Your task to perform on an android device: visit the assistant section in the google photos Image 0: 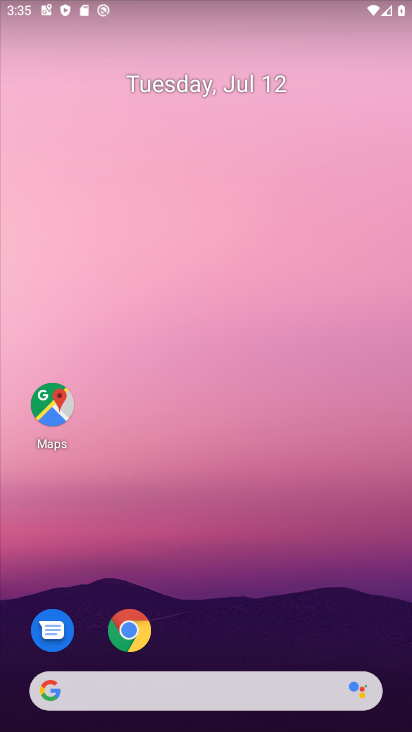
Step 0: drag from (231, 648) to (137, 97)
Your task to perform on an android device: visit the assistant section in the google photos Image 1: 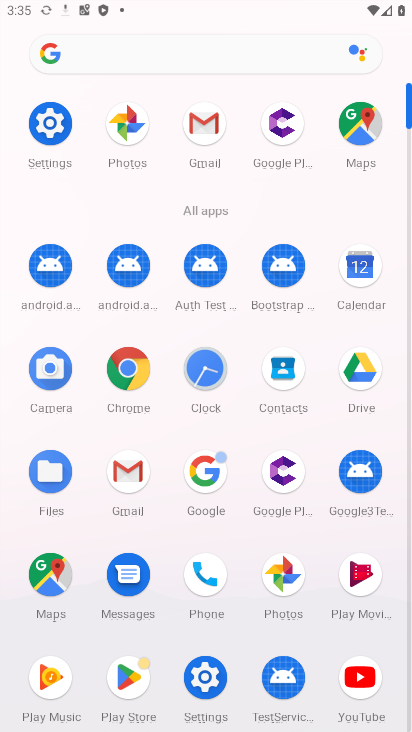
Step 1: click (298, 572)
Your task to perform on an android device: visit the assistant section in the google photos Image 2: 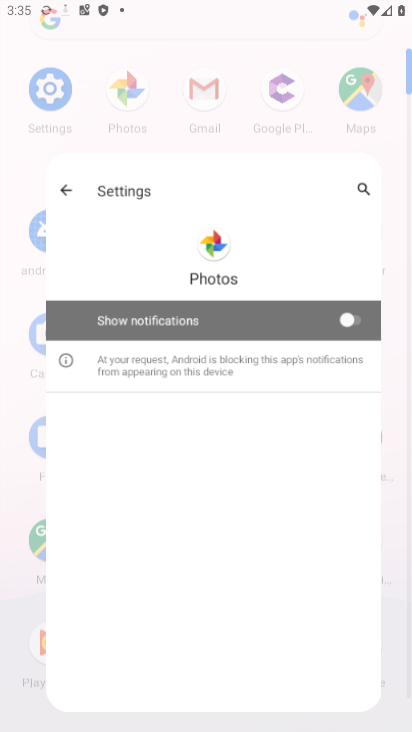
Step 2: click (290, 555)
Your task to perform on an android device: visit the assistant section in the google photos Image 3: 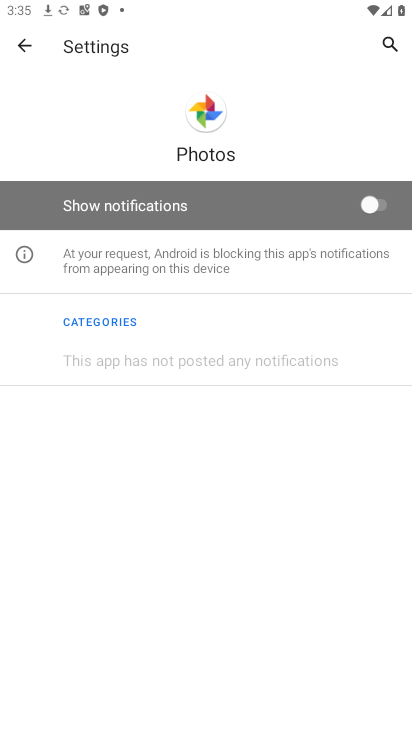
Step 3: click (25, 48)
Your task to perform on an android device: visit the assistant section in the google photos Image 4: 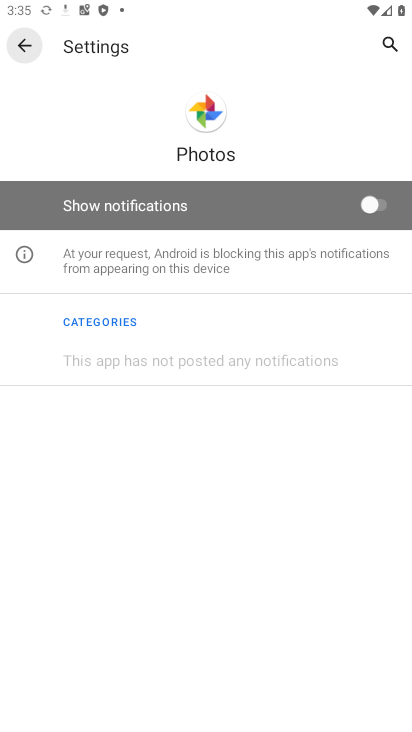
Step 4: click (32, 42)
Your task to perform on an android device: visit the assistant section in the google photos Image 5: 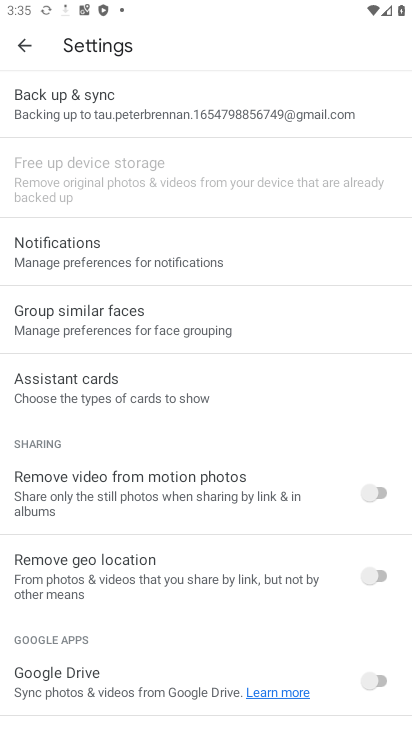
Step 5: click (29, 29)
Your task to perform on an android device: visit the assistant section in the google photos Image 6: 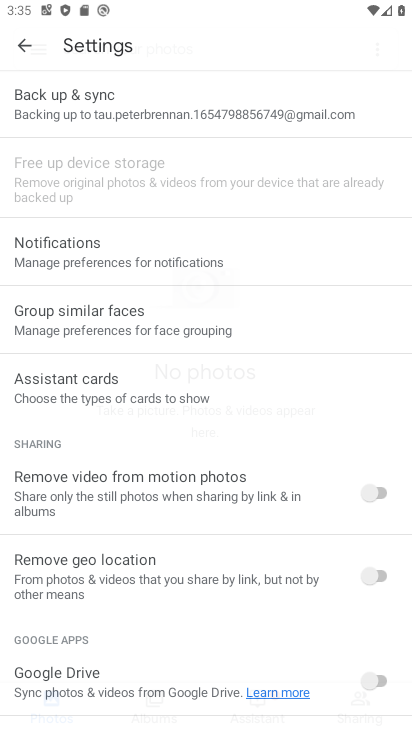
Step 6: click (17, 48)
Your task to perform on an android device: visit the assistant section in the google photos Image 7: 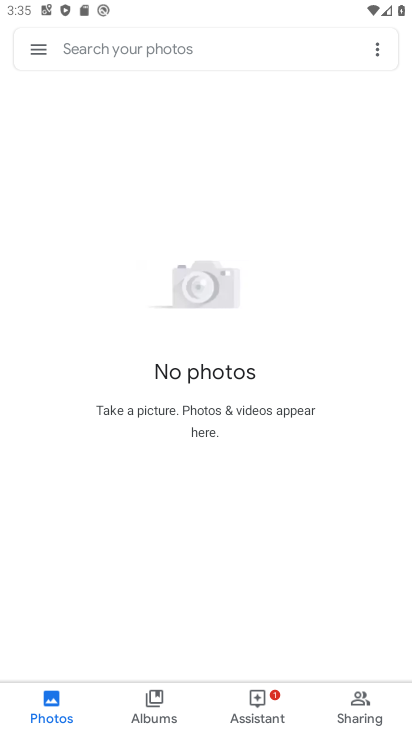
Step 7: click (259, 706)
Your task to perform on an android device: visit the assistant section in the google photos Image 8: 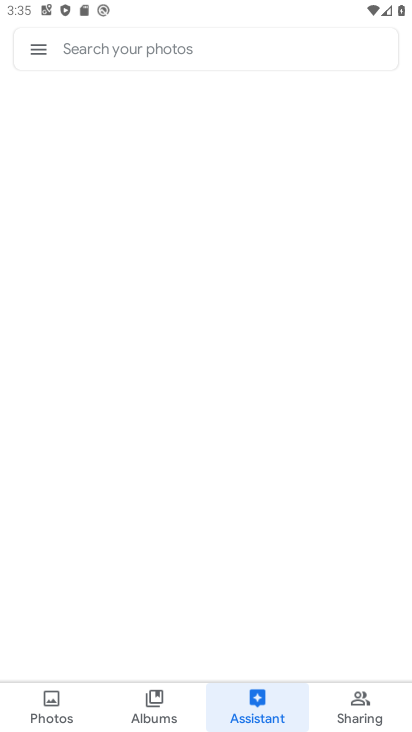
Step 8: click (253, 699)
Your task to perform on an android device: visit the assistant section in the google photos Image 9: 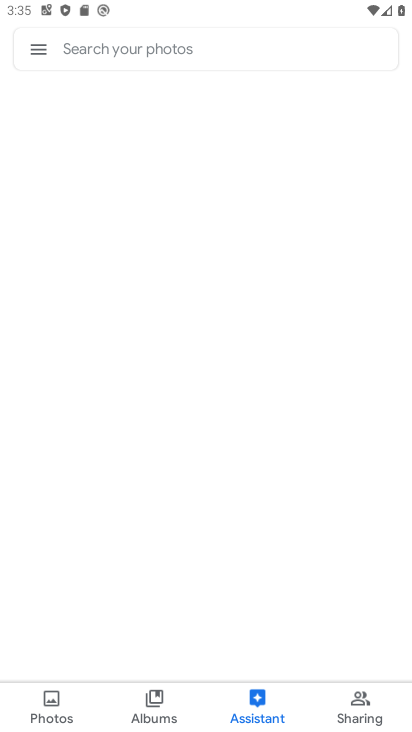
Step 9: click (266, 686)
Your task to perform on an android device: visit the assistant section in the google photos Image 10: 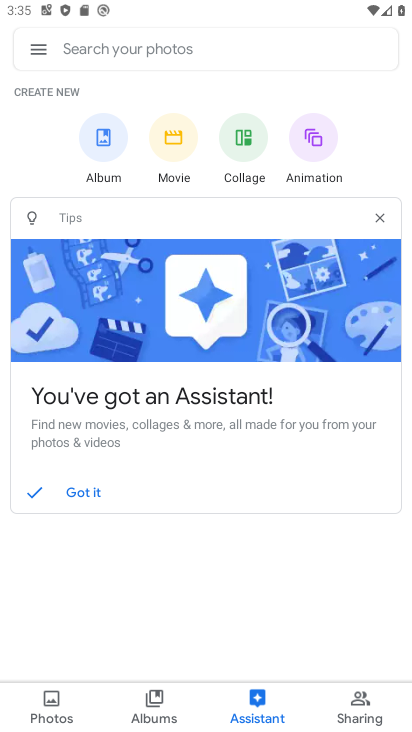
Step 10: task complete